Your task to perform on an android device: delete browsing data in the chrome app Image 0: 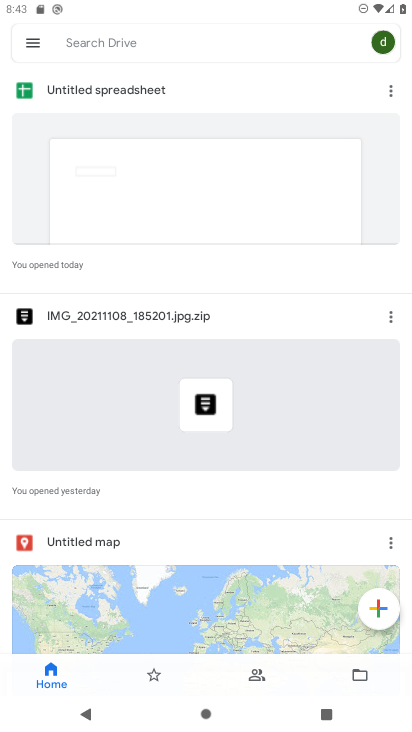
Step 0: press home button
Your task to perform on an android device: delete browsing data in the chrome app Image 1: 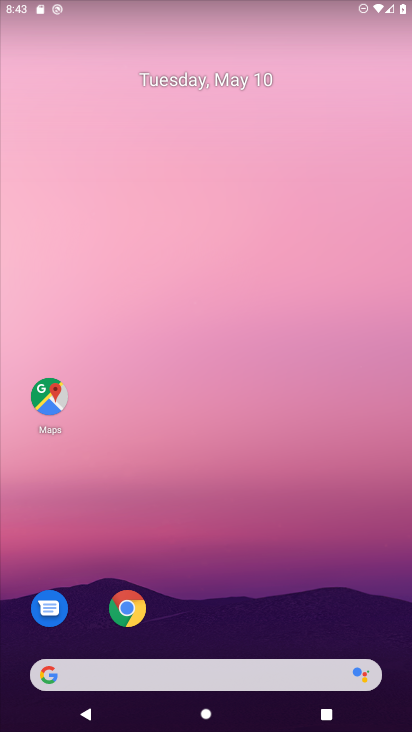
Step 1: drag from (349, 630) to (252, 24)
Your task to perform on an android device: delete browsing data in the chrome app Image 2: 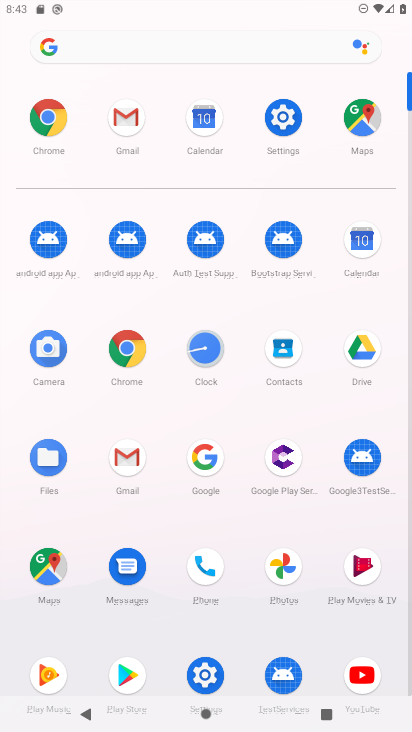
Step 2: click (58, 117)
Your task to perform on an android device: delete browsing data in the chrome app Image 3: 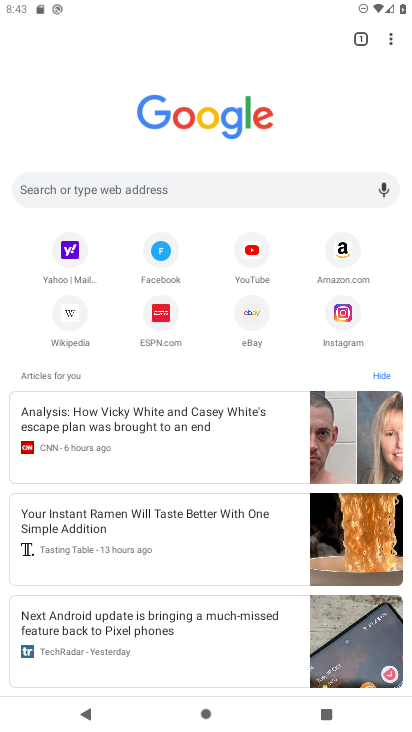
Step 3: click (394, 38)
Your task to perform on an android device: delete browsing data in the chrome app Image 4: 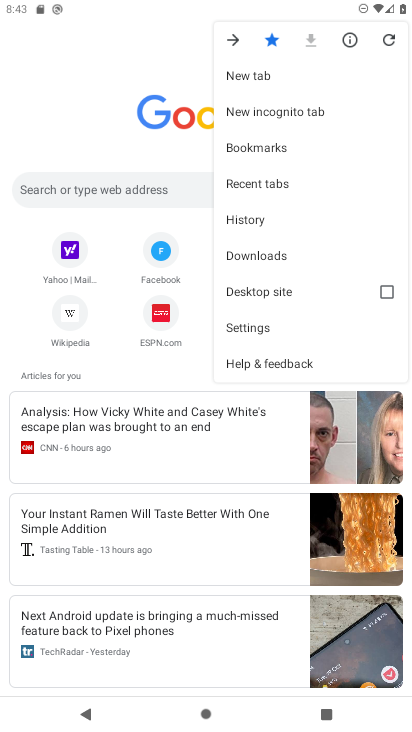
Step 4: click (247, 210)
Your task to perform on an android device: delete browsing data in the chrome app Image 5: 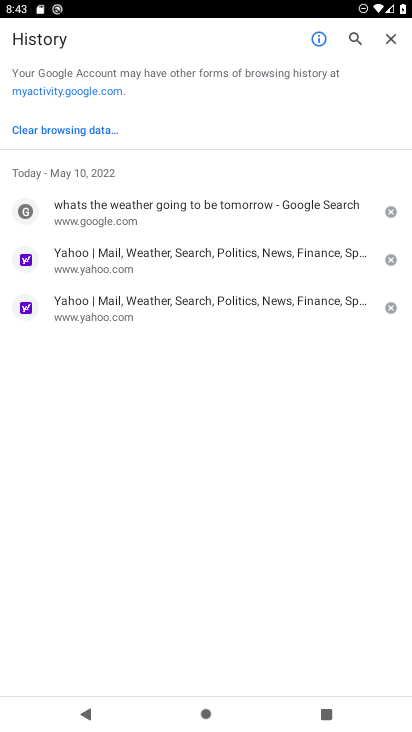
Step 5: click (98, 136)
Your task to perform on an android device: delete browsing data in the chrome app Image 6: 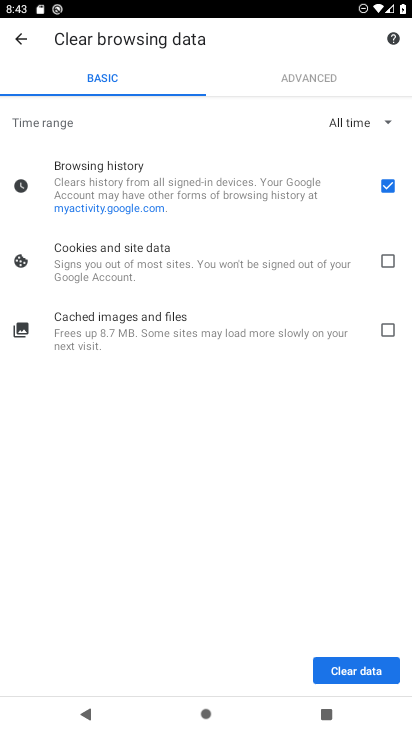
Step 6: click (351, 676)
Your task to perform on an android device: delete browsing data in the chrome app Image 7: 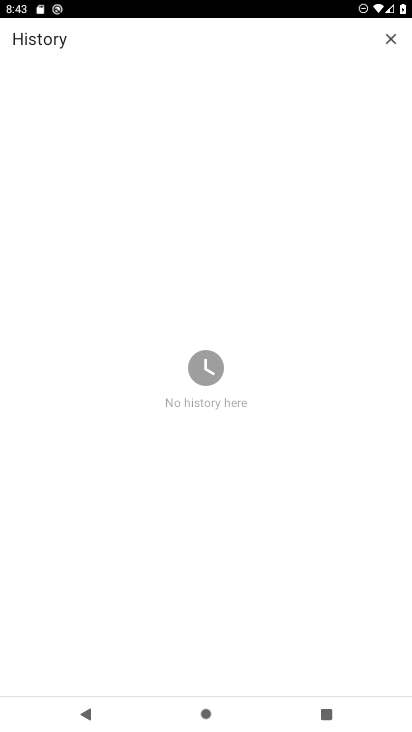
Step 7: task complete